Your task to perform on an android device: Go to battery settings Image 0: 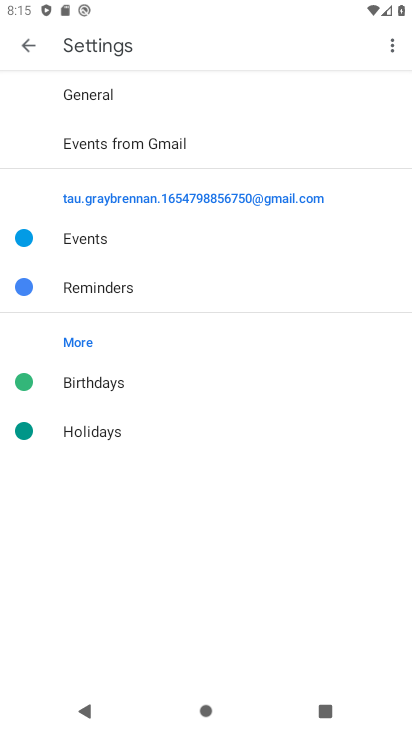
Step 0: press home button
Your task to perform on an android device: Go to battery settings Image 1: 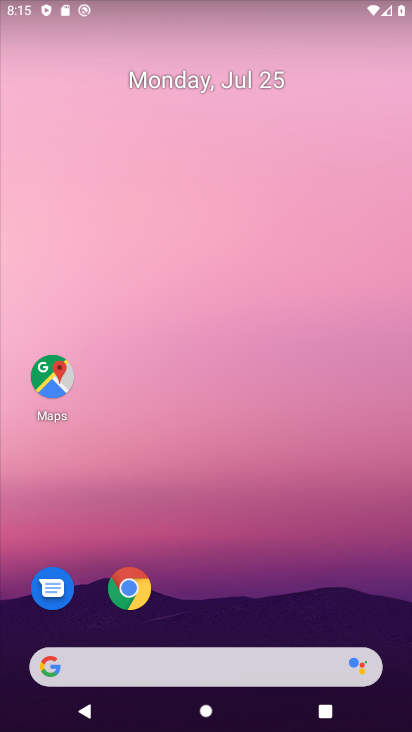
Step 1: drag from (347, 578) to (364, 69)
Your task to perform on an android device: Go to battery settings Image 2: 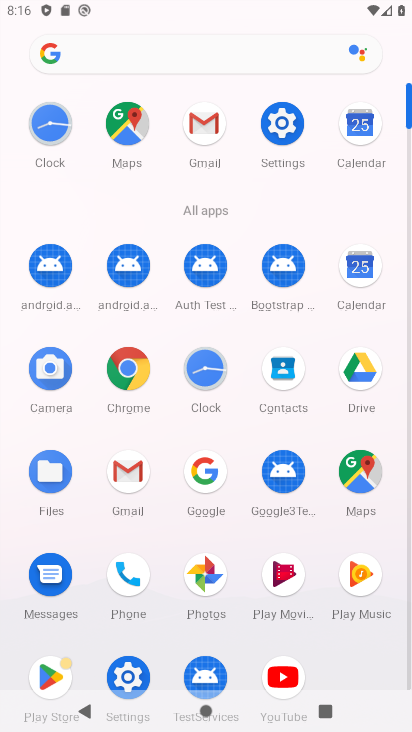
Step 2: click (284, 133)
Your task to perform on an android device: Go to battery settings Image 3: 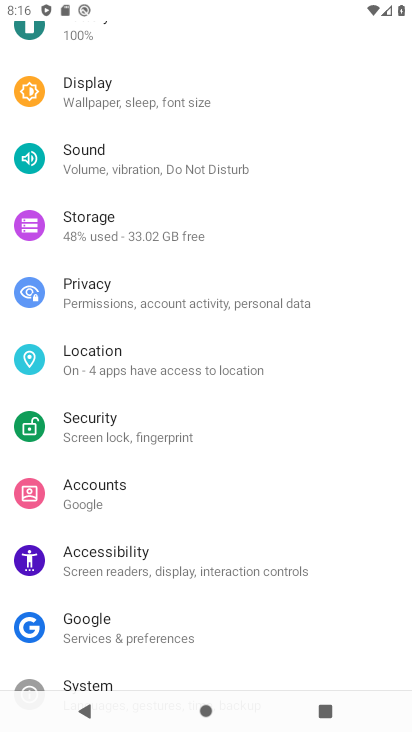
Step 3: drag from (345, 366) to (354, 303)
Your task to perform on an android device: Go to battery settings Image 4: 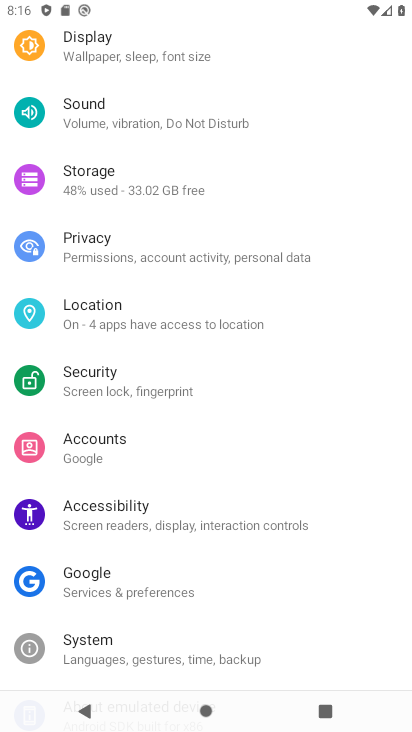
Step 4: drag from (361, 414) to (363, 304)
Your task to perform on an android device: Go to battery settings Image 5: 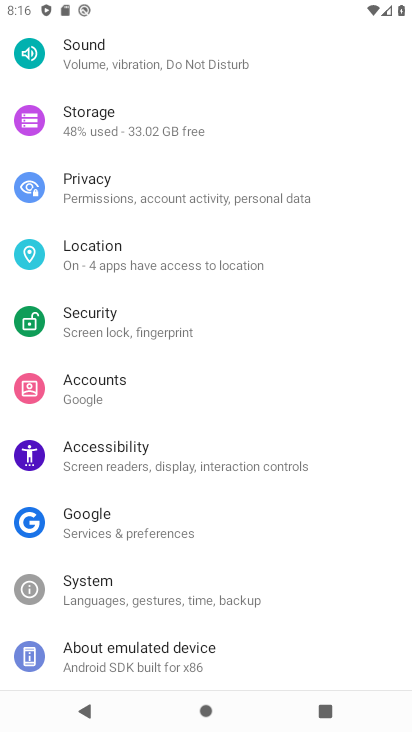
Step 5: drag from (363, 274) to (365, 345)
Your task to perform on an android device: Go to battery settings Image 6: 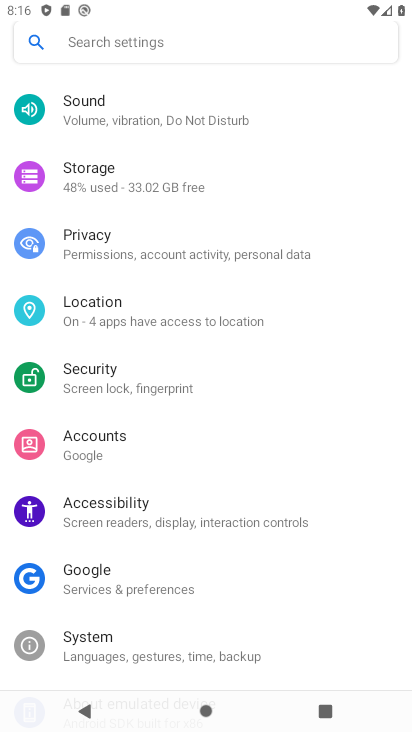
Step 6: drag from (363, 258) to (352, 328)
Your task to perform on an android device: Go to battery settings Image 7: 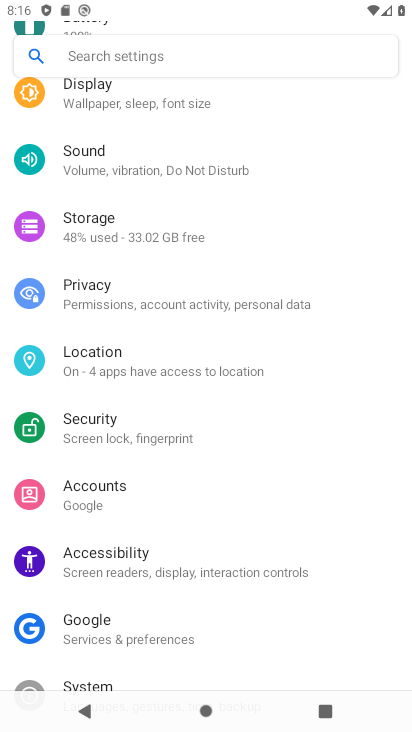
Step 7: drag from (352, 244) to (352, 316)
Your task to perform on an android device: Go to battery settings Image 8: 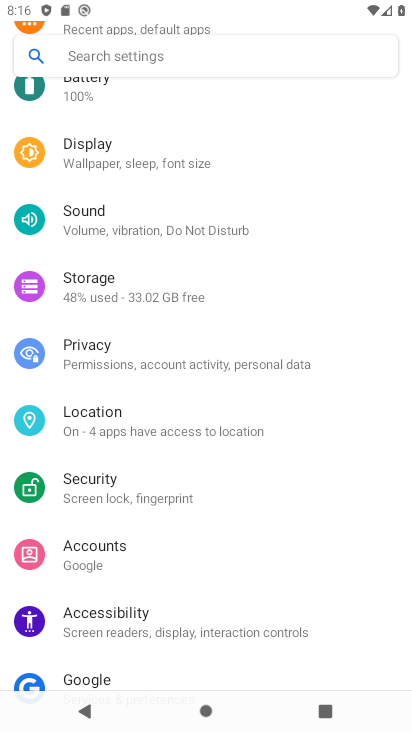
Step 8: drag from (340, 212) to (340, 299)
Your task to perform on an android device: Go to battery settings Image 9: 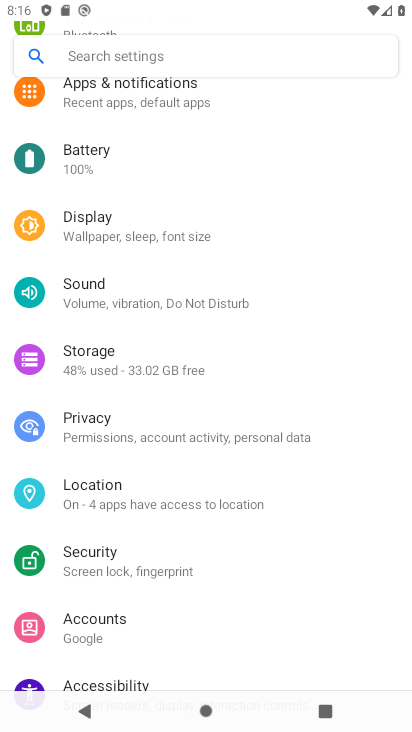
Step 9: drag from (331, 175) to (340, 290)
Your task to perform on an android device: Go to battery settings Image 10: 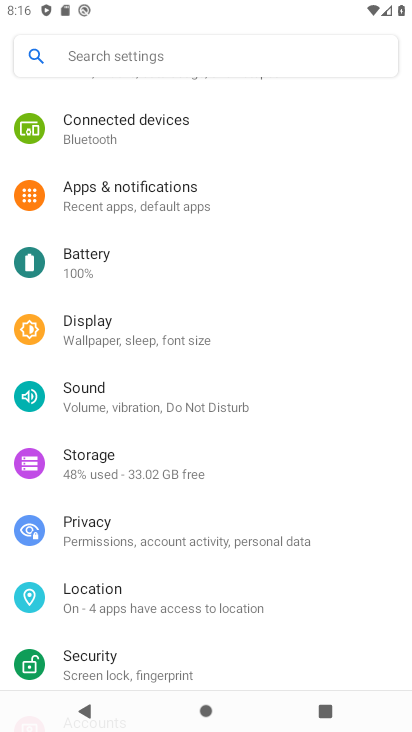
Step 10: drag from (340, 163) to (340, 351)
Your task to perform on an android device: Go to battery settings Image 11: 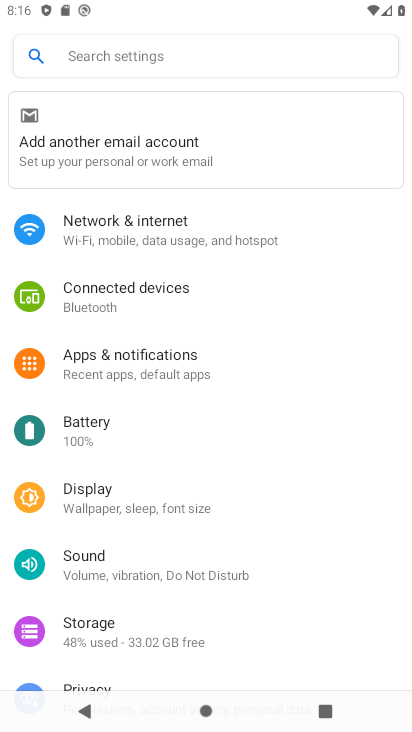
Step 11: drag from (339, 220) to (339, 387)
Your task to perform on an android device: Go to battery settings Image 12: 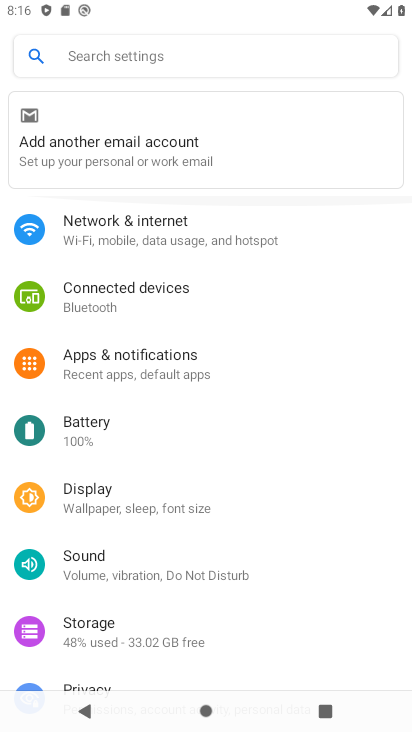
Step 12: click (173, 431)
Your task to perform on an android device: Go to battery settings Image 13: 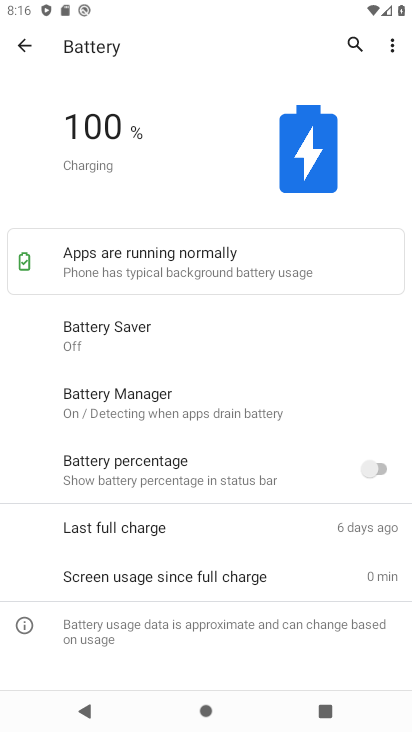
Step 13: task complete